Your task to perform on an android device: turn on the 12-hour format for clock Image 0: 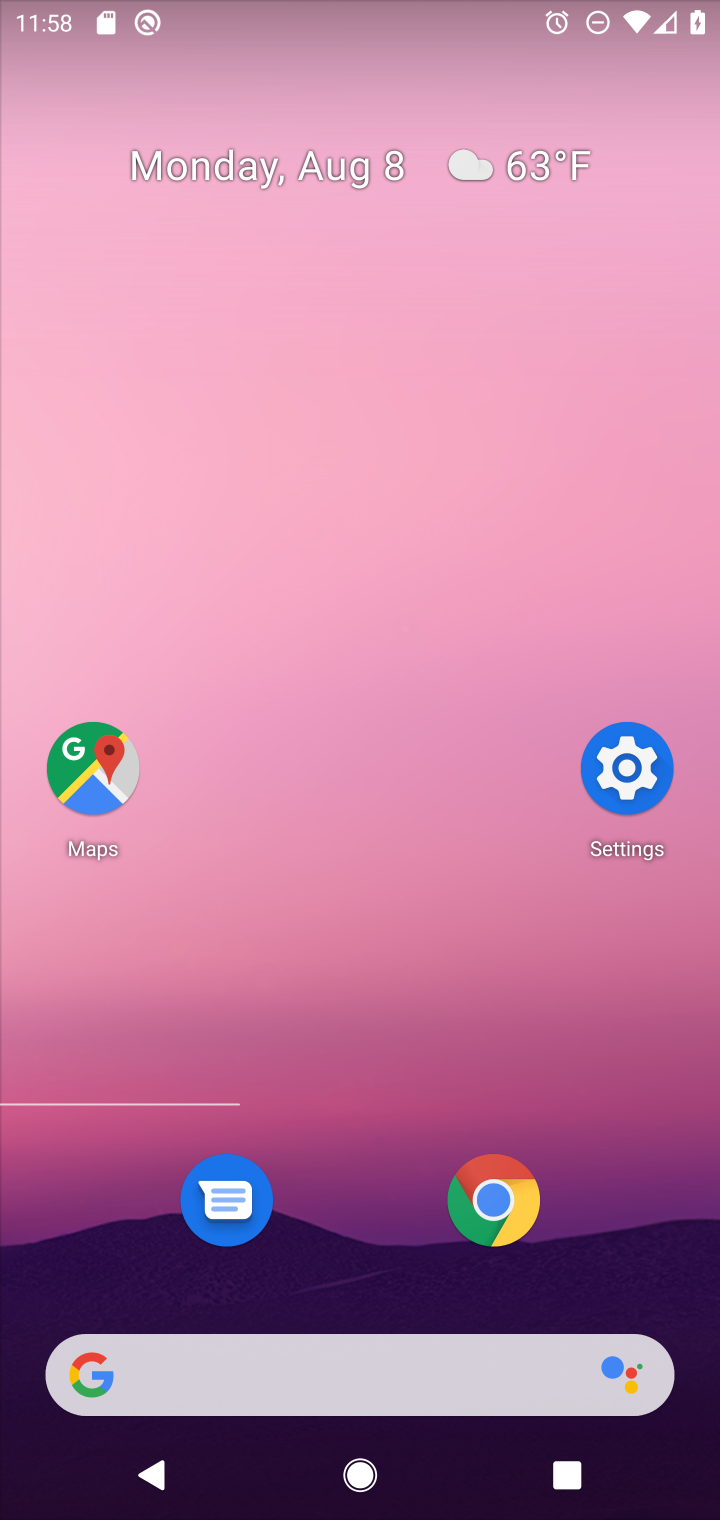
Step 0: press home button
Your task to perform on an android device: turn on the 12-hour format for clock Image 1: 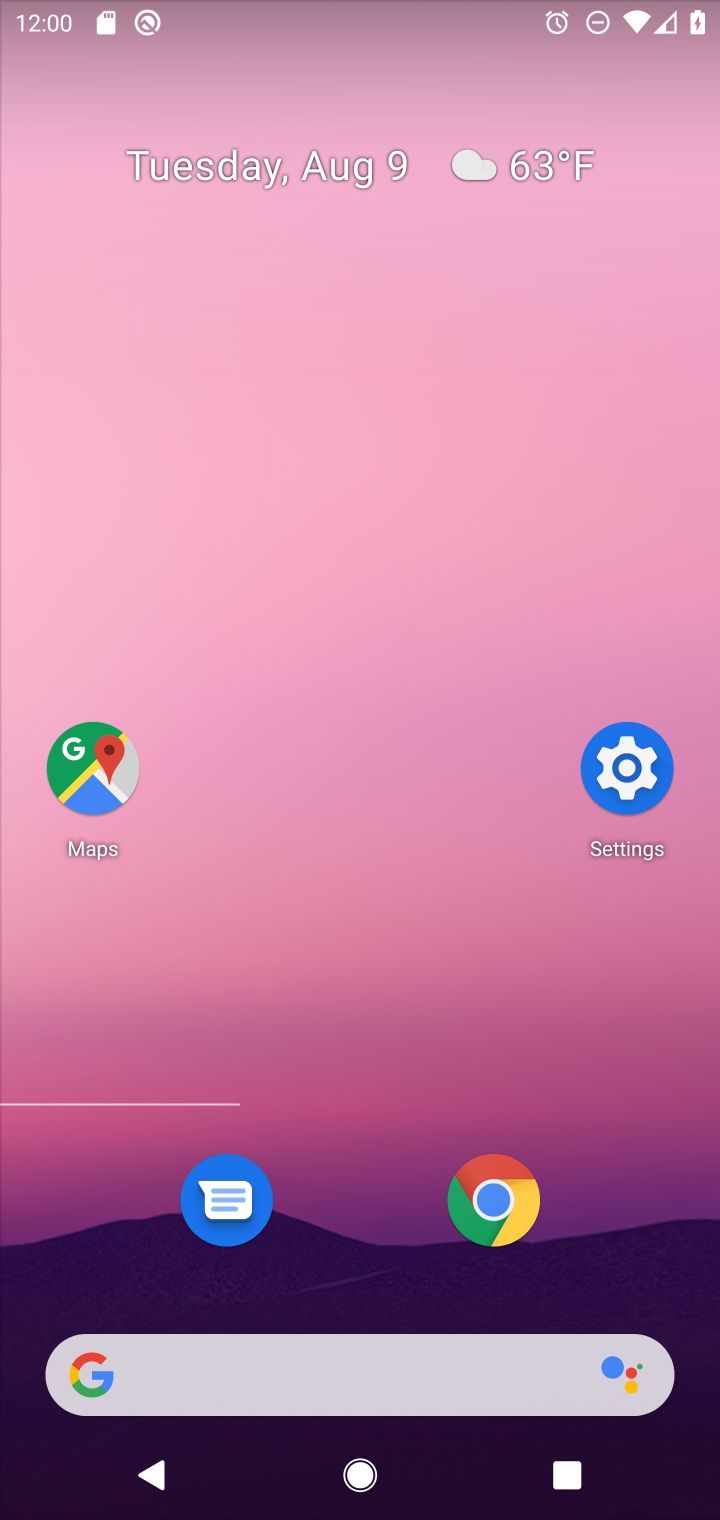
Step 1: drag from (441, 1357) to (609, 331)
Your task to perform on an android device: turn on the 12-hour format for clock Image 2: 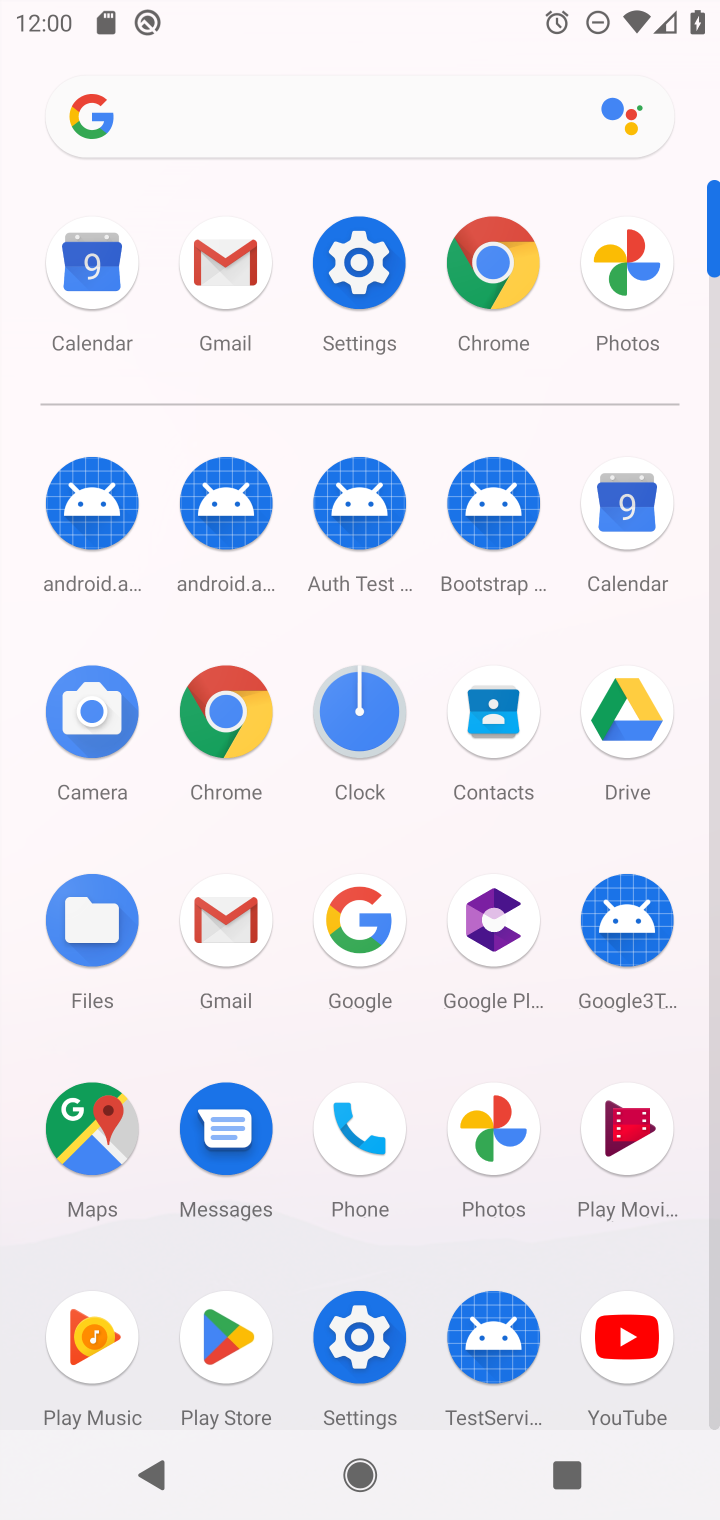
Step 2: click (359, 713)
Your task to perform on an android device: turn on the 12-hour format for clock Image 3: 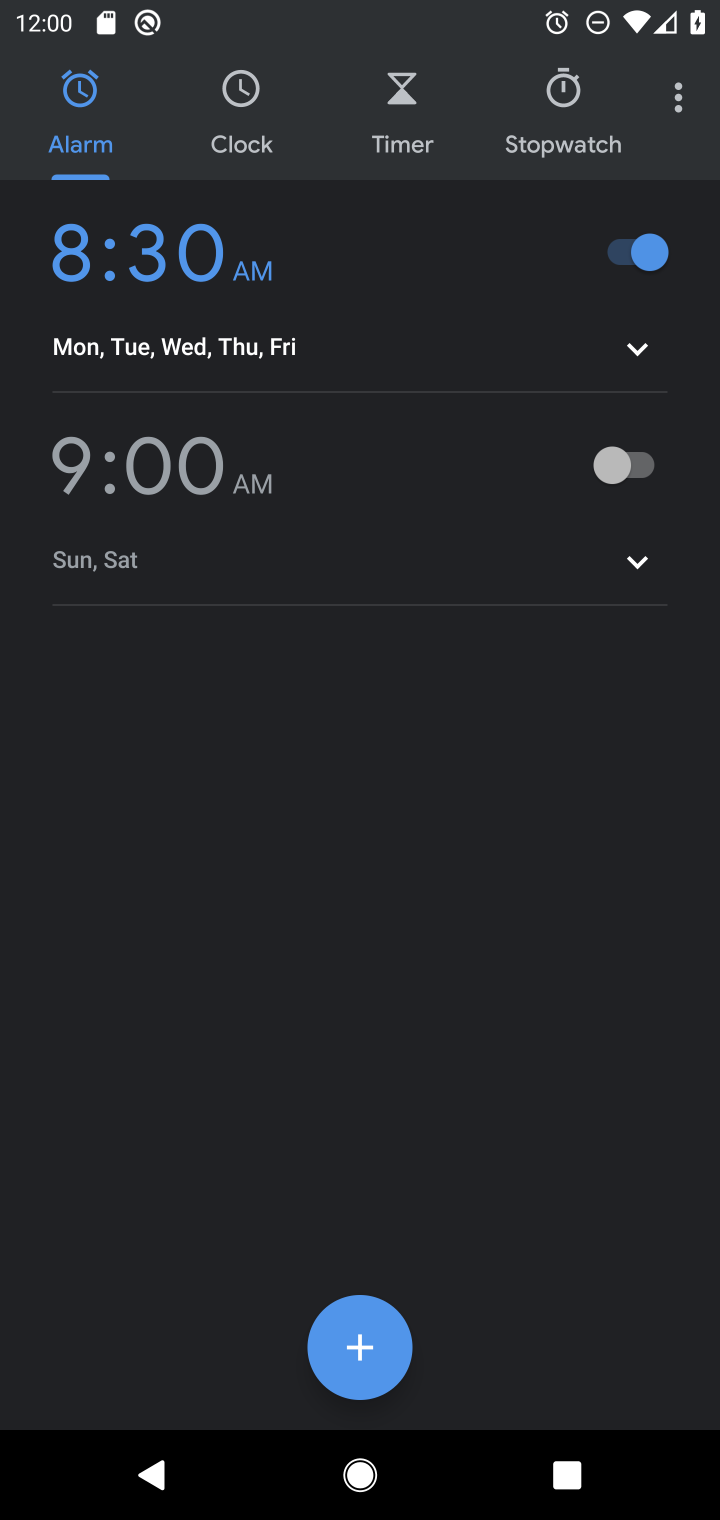
Step 3: click (683, 103)
Your task to perform on an android device: turn on the 12-hour format for clock Image 4: 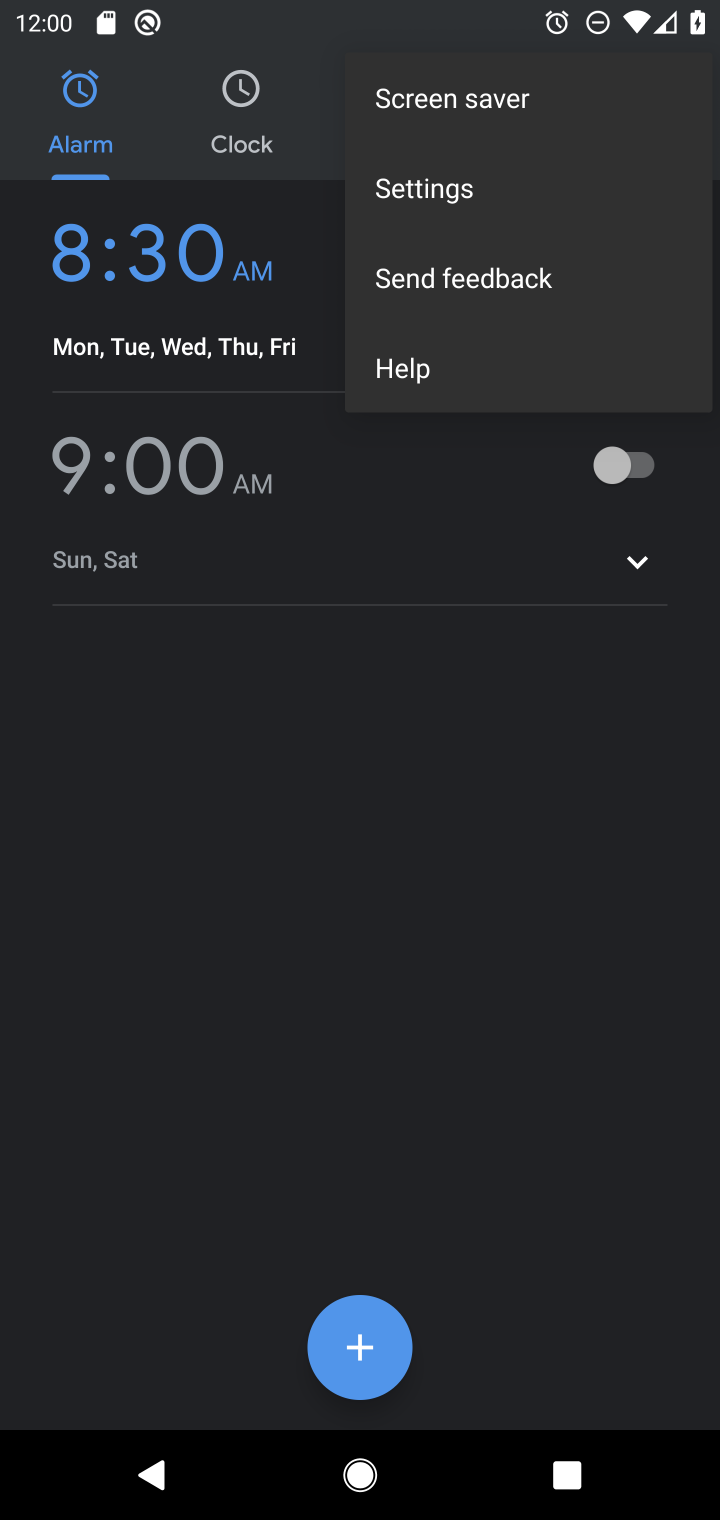
Step 4: click (505, 196)
Your task to perform on an android device: turn on the 12-hour format for clock Image 5: 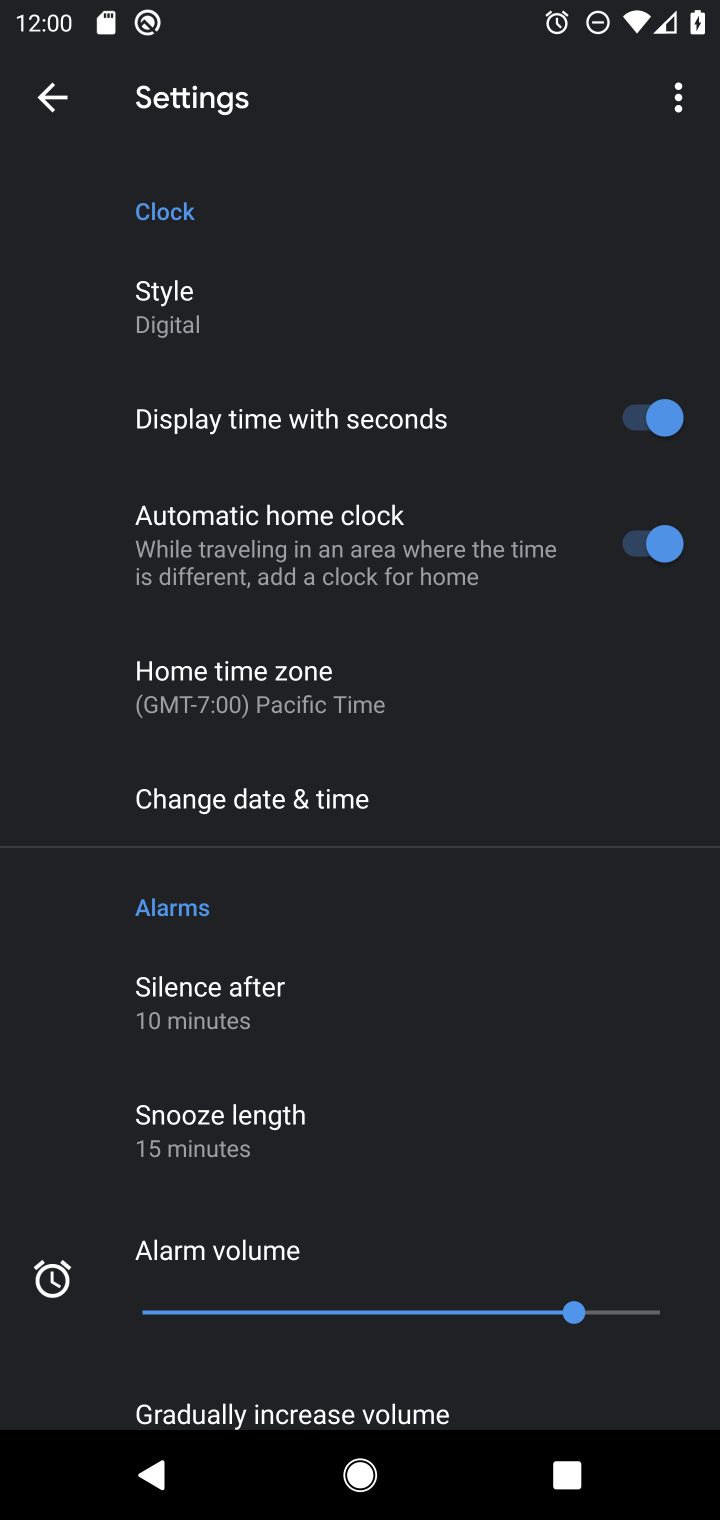
Step 5: drag from (530, 1242) to (622, 121)
Your task to perform on an android device: turn on the 12-hour format for clock Image 6: 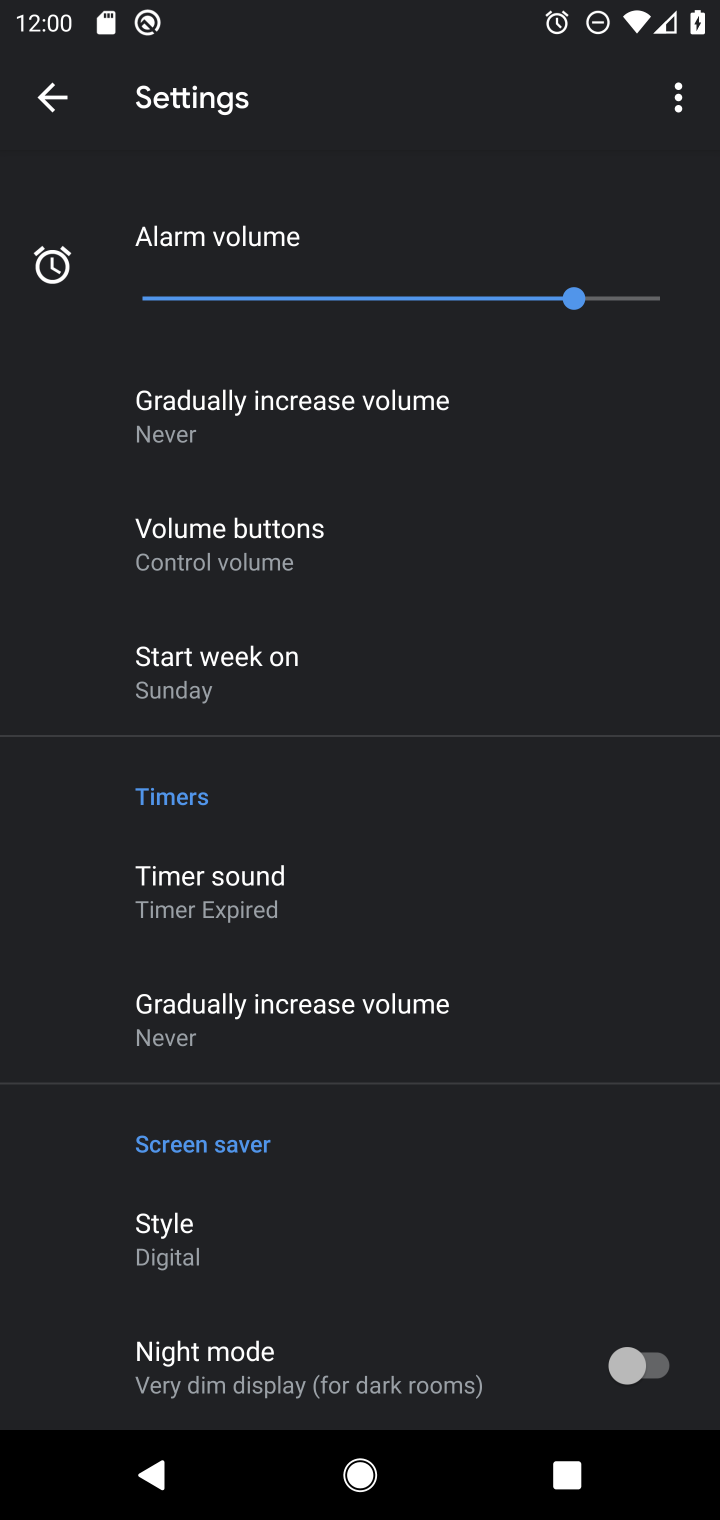
Step 6: drag from (532, 438) to (400, 1225)
Your task to perform on an android device: turn on the 12-hour format for clock Image 7: 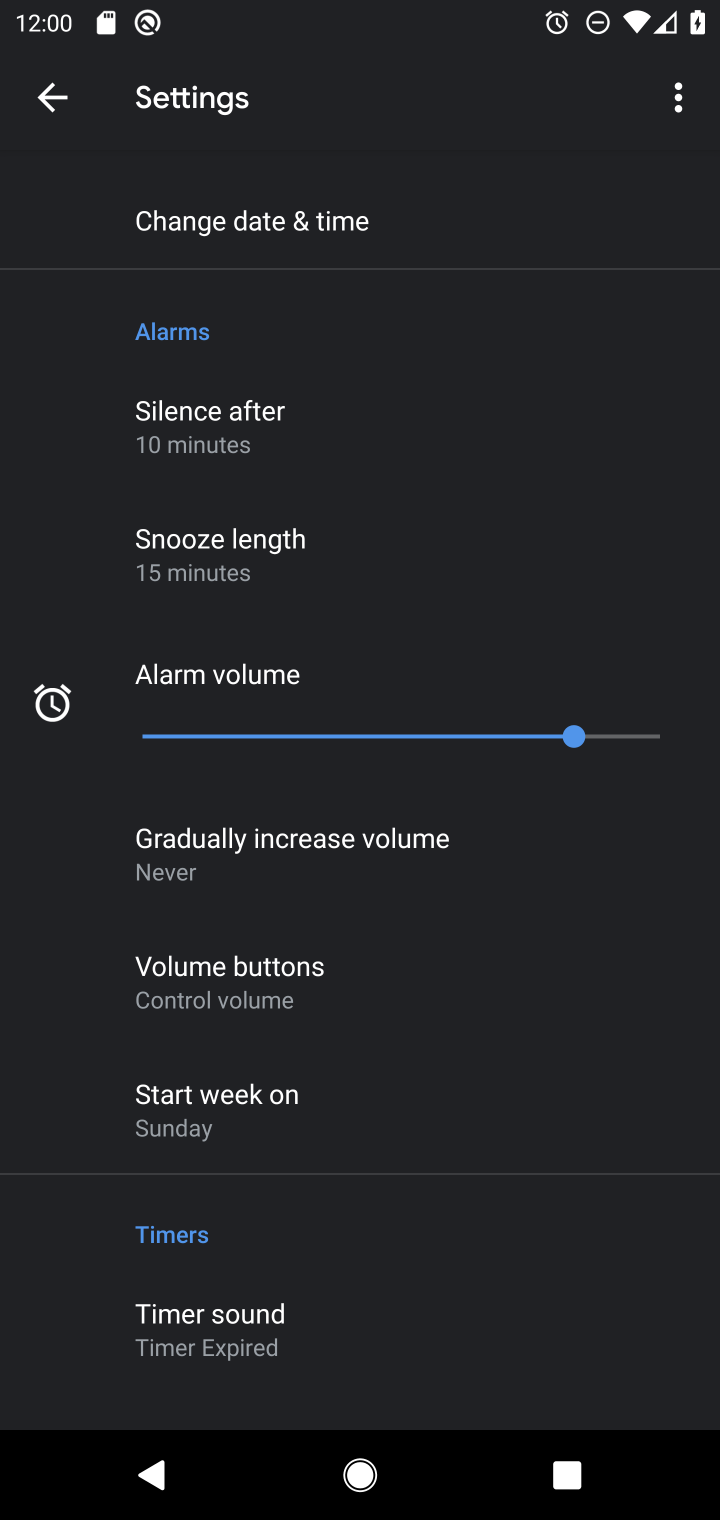
Step 7: click (294, 219)
Your task to perform on an android device: turn on the 12-hour format for clock Image 8: 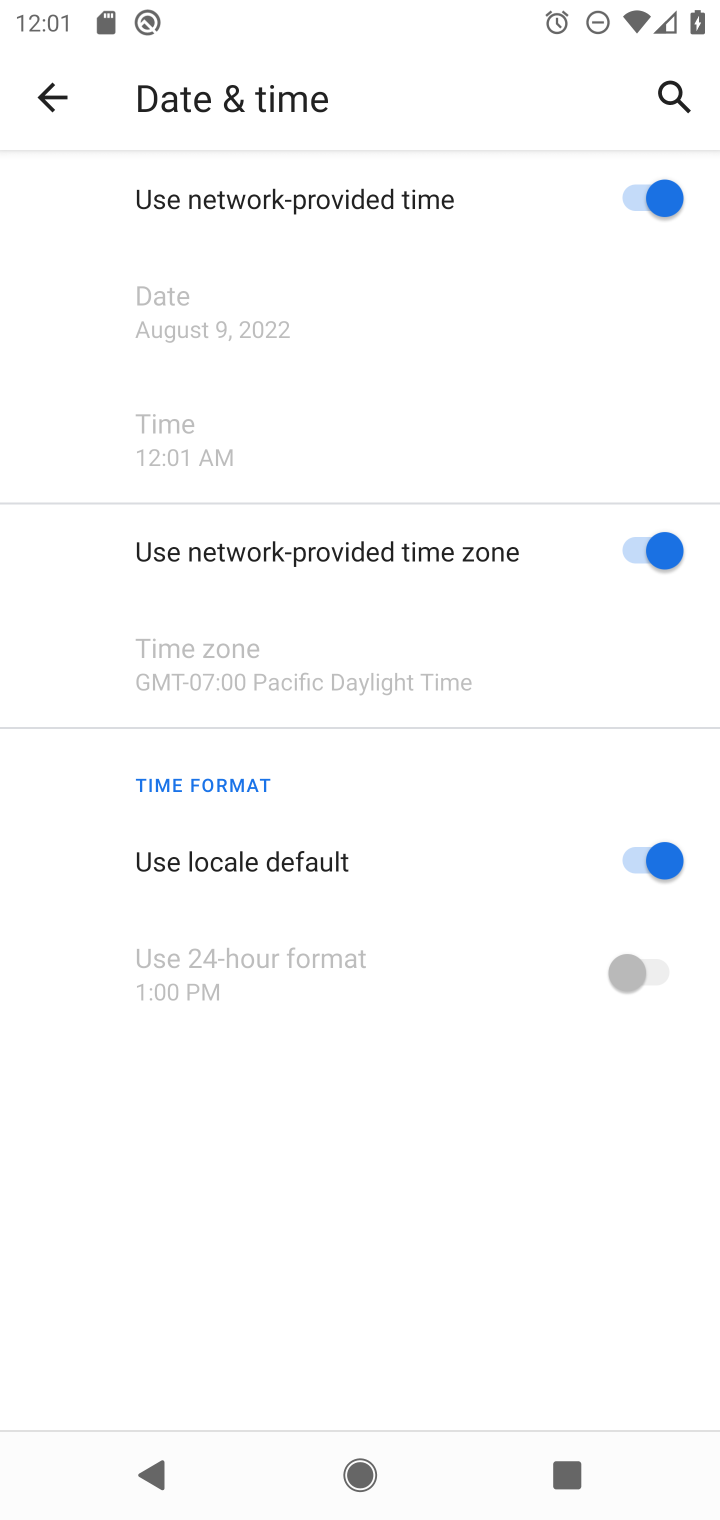
Step 8: task complete